Your task to perform on an android device: Open Wikipedia Image 0: 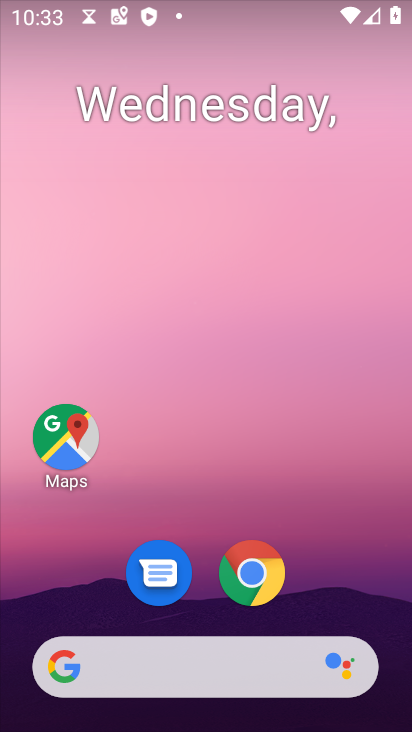
Step 0: click (248, 586)
Your task to perform on an android device: Open Wikipedia Image 1: 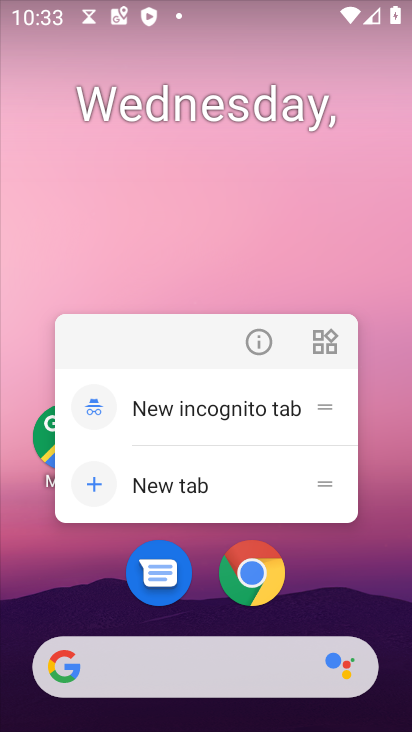
Step 1: click (247, 568)
Your task to perform on an android device: Open Wikipedia Image 2: 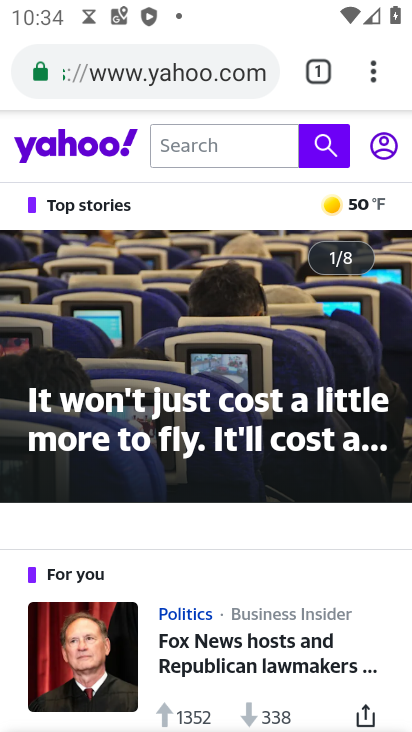
Step 2: click (321, 71)
Your task to perform on an android device: Open Wikipedia Image 3: 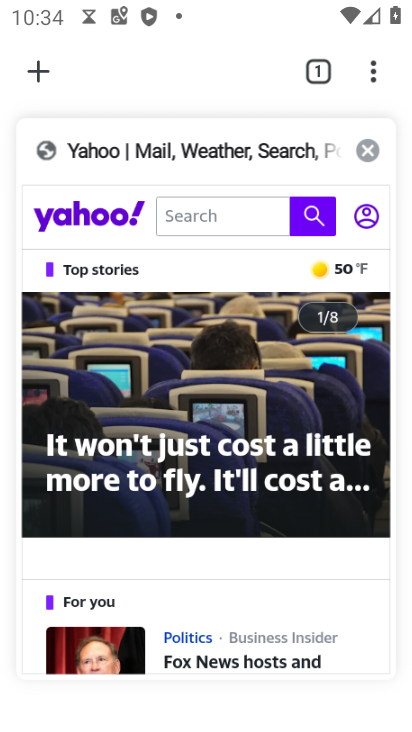
Step 3: click (37, 72)
Your task to perform on an android device: Open Wikipedia Image 4: 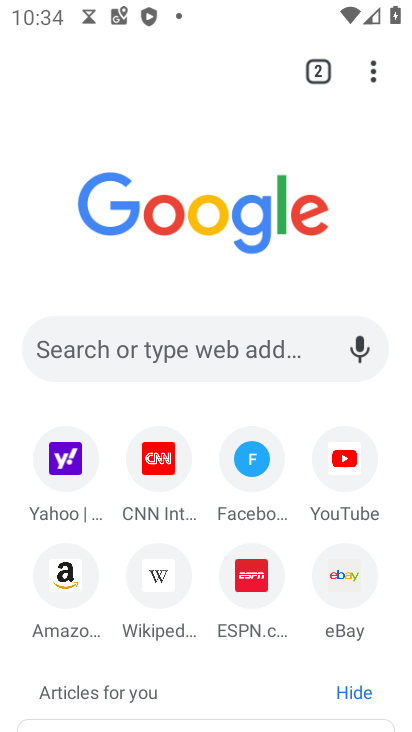
Step 4: click (157, 589)
Your task to perform on an android device: Open Wikipedia Image 5: 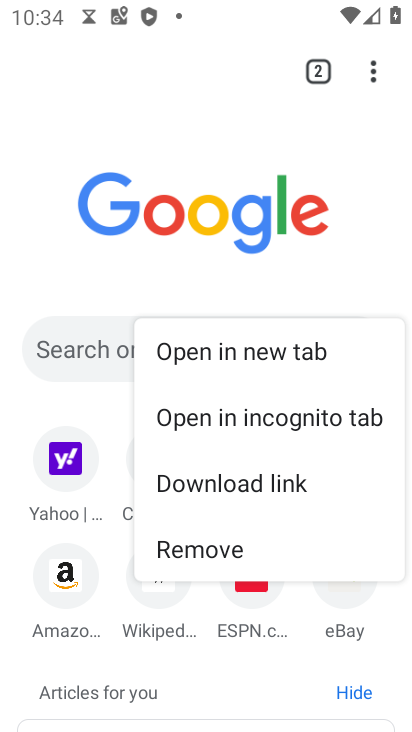
Step 5: click (116, 610)
Your task to perform on an android device: Open Wikipedia Image 6: 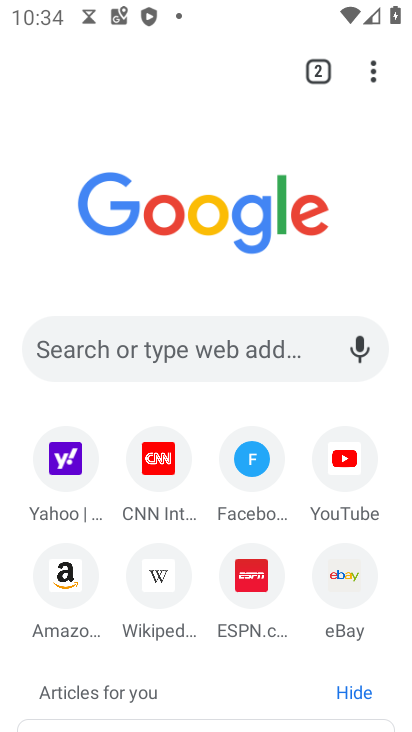
Step 6: click (124, 596)
Your task to perform on an android device: Open Wikipedia Image 7: 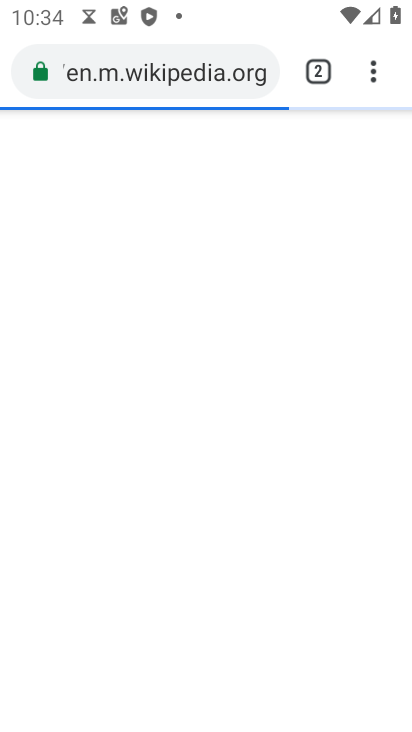
Step 7: click (158, 582)
Your task to perform on an android device: Open Wikipedia Image 8: 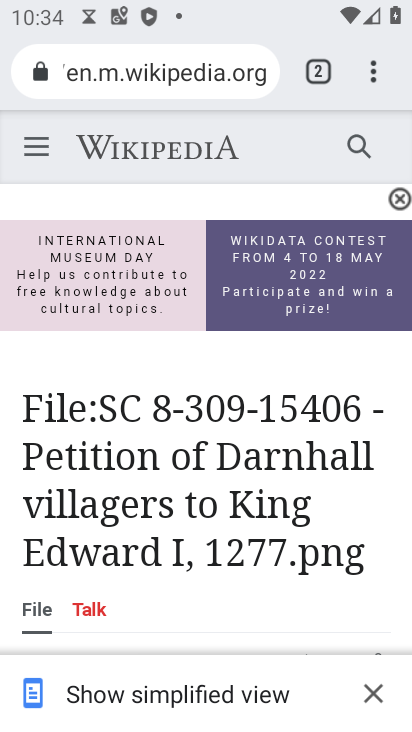
Step 8: task complete